Your task to perform on an android device: Go to Yahoo.com Image 0: 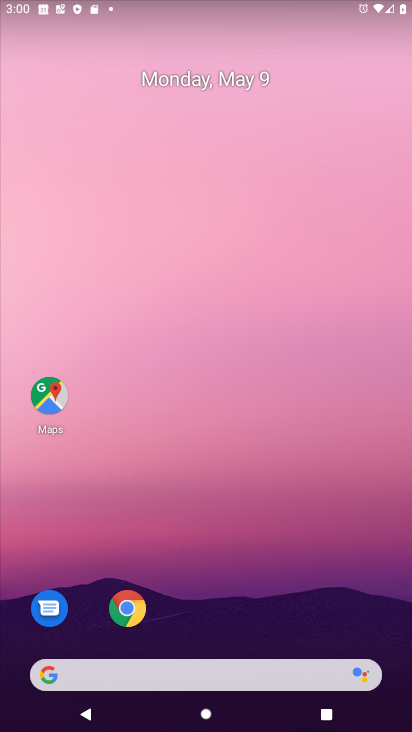
Step 0: click (125, 606)
Your task to perform on an android device: Go to Yahoo.com Image 1: 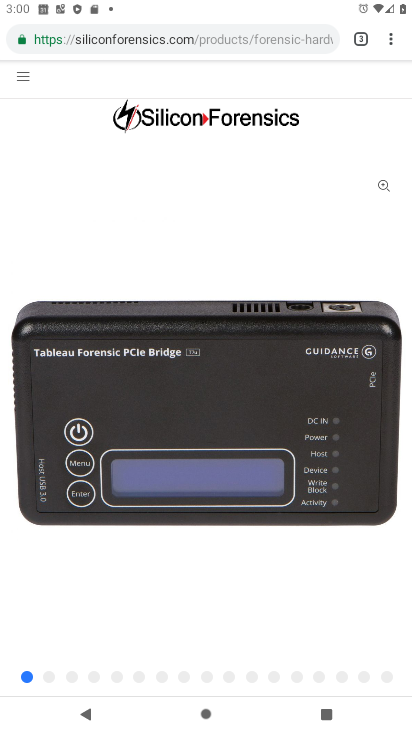
Step 1: click (364, 41)
Your task to perform on an android device: Go to Yahoo.com Image 2: 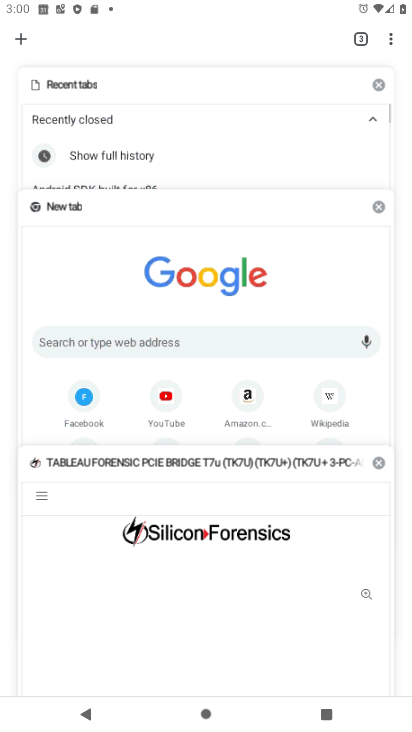
Step 2: click (31, 50)
Your task to perform on an android device: Go to Yahoo.com Image 3: 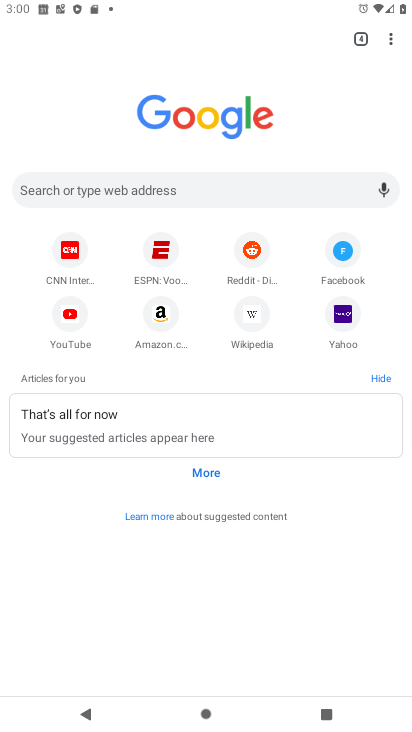
Step 3: click (345, 311)
Your task to perform on an android device: Go to Yahoo.com Image 4: 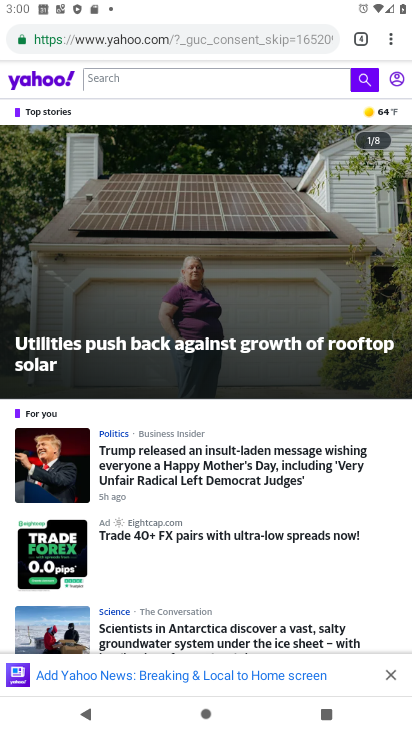
Step 4: task complete